Your task to perform on an android device: read, delete, or share a saved page in the chrome app Image 0: 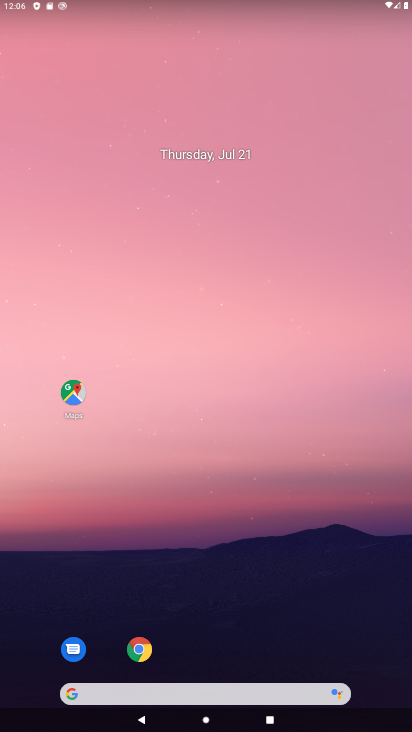
Step 0: click (136, 649)
Your task to perform on an android device: read, delete, or share a saved page in the chrome app Image 1: 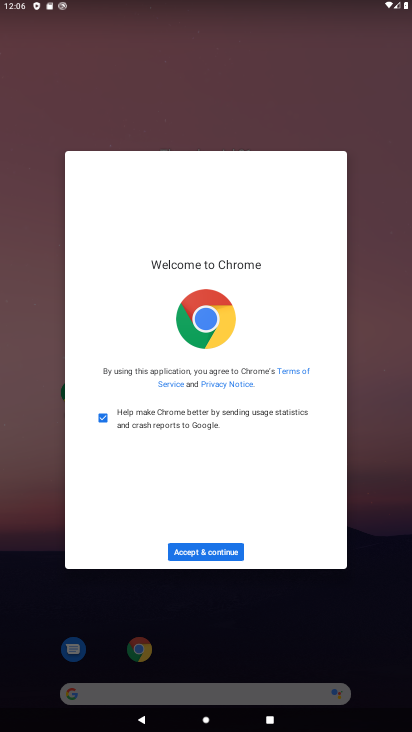
Step 1: click (206, 547)
Your task to perform on an android device: read, delete, or share a saved page in the chrome app Image 2: 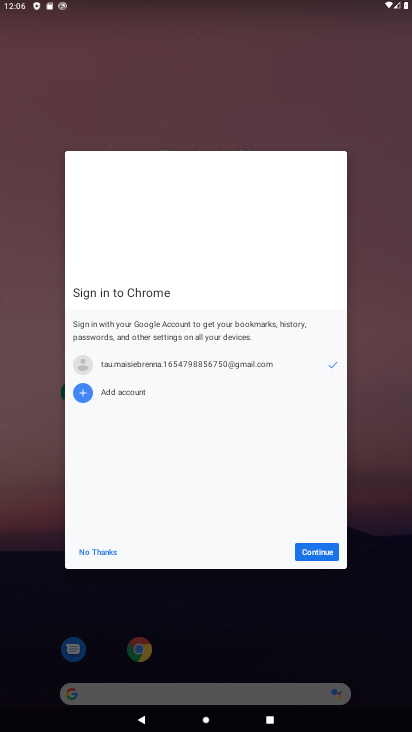
Step 2: click (316, 551)
Your task to perform on an android device: read, delete, or share a saved page in the chrome app Image 3: 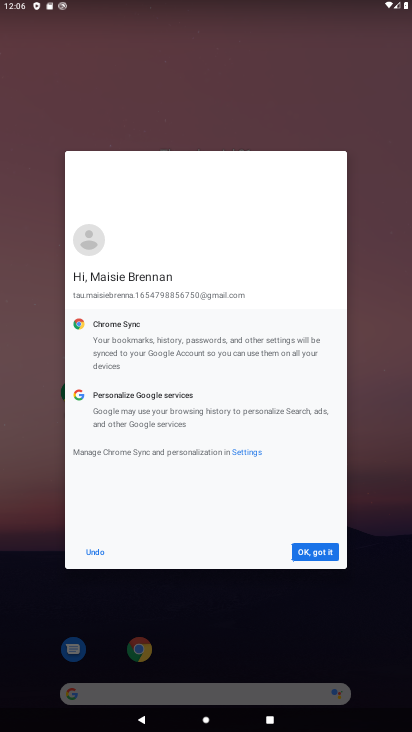
Step 3: click (312, 550)
Your task to perform on an android device: read, delete, or share a saved page in the chrome app Image 4: 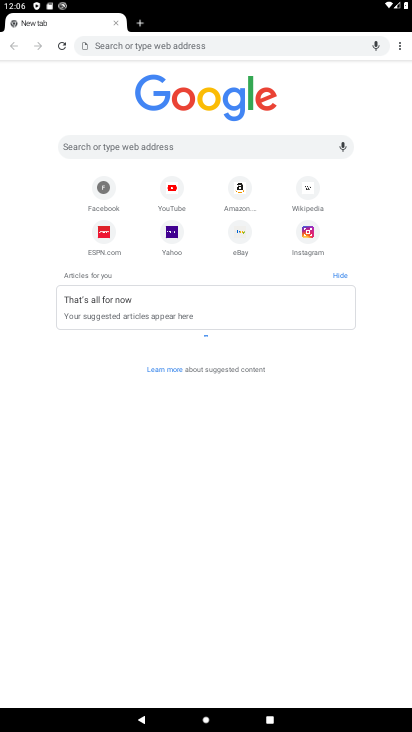
Step 4: click (398, 50)
Your task to perform on an android device: read, delete, or share a saved page in the chrome app Image 5: 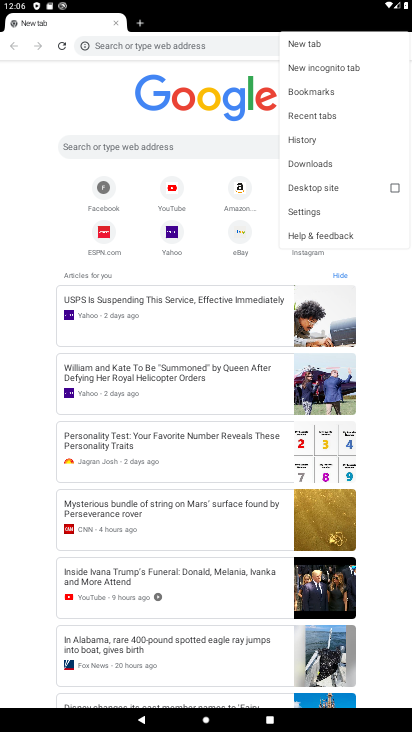
Step 5: click (303, 162)
Your task to perform on an android device: read, delete, or share a saved page in the chrome app Image 6: 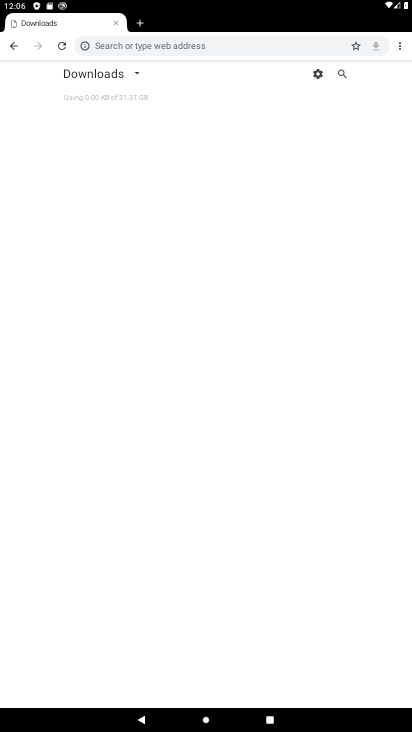
Step 6: click (135, 74)
Your task to perform on an android device: read, delete, or share a saved page in the chrome app Image 7: 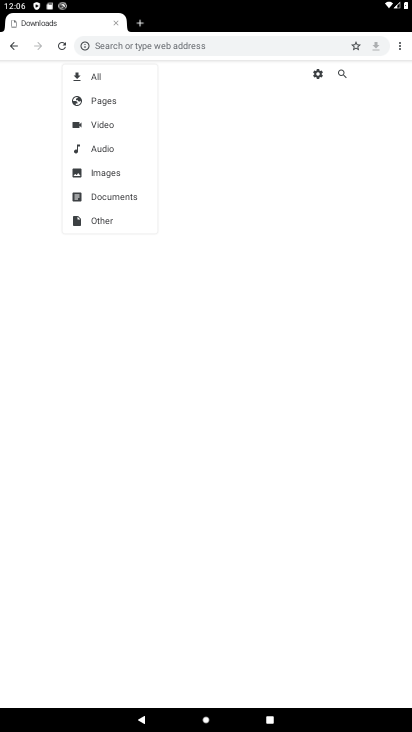
Step 7: click (98, 98)
Your task to perform on an android device: read, delete, or share a saved page in the chrome app Image 8: 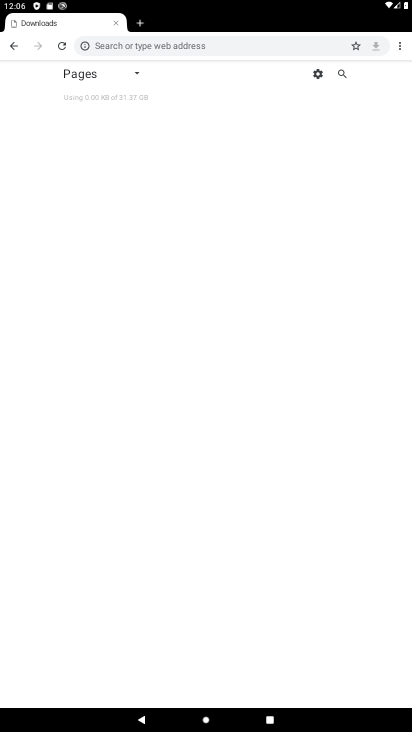
Step 8: task complete